Your task to perform on an android device: turn off priority inbox in the gmail app Image 0: 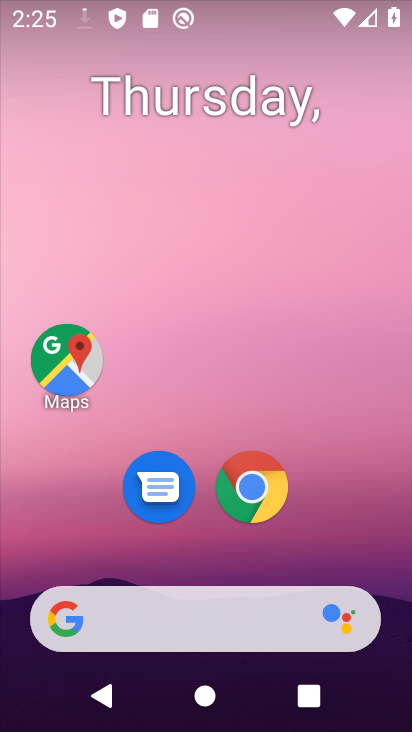
Step 0: drag from (340, 555) to (322, 147)
Your task to perform on an android device: turn off priority inbox in the gmail app Image 1: 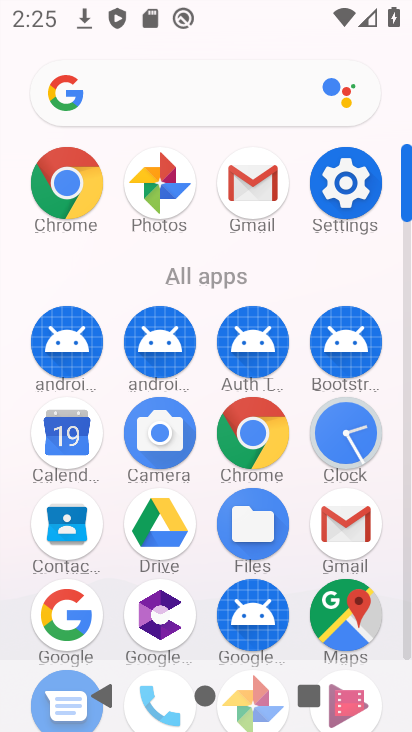
Step 1: click (354, 535)
Your task to perform on an android device: turn off priority inbox in the gmail app Image 2: 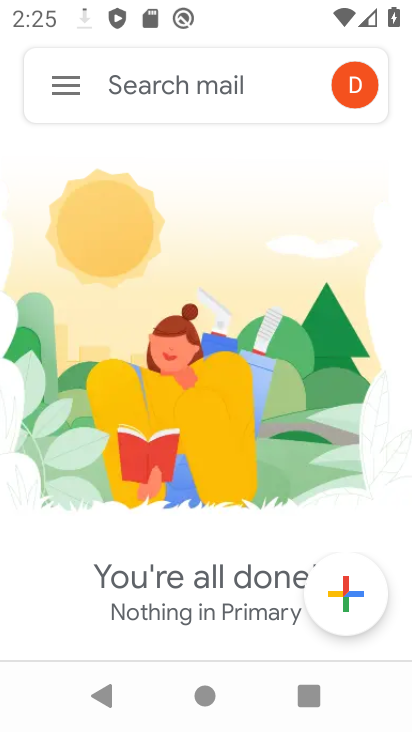
Step 2: click (52, 85)
Your task to perform on an android device: turn off priority inbox in the gmail app Image 3: 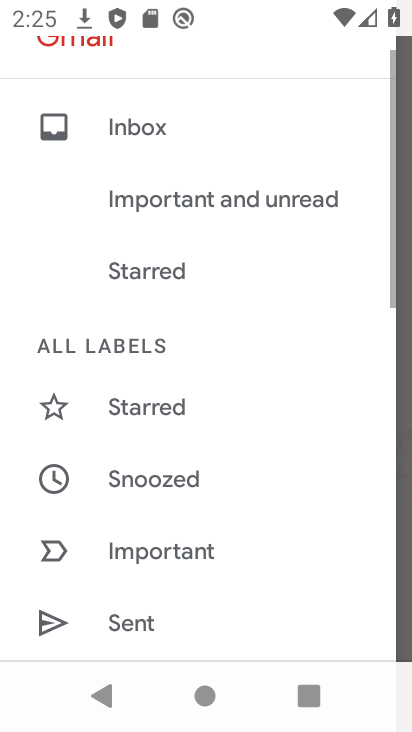
Step 3: drag from (182, 426) to (192, 182)
Your task to perform on an android device: turn off priority inbox in the gmail app Image 4: 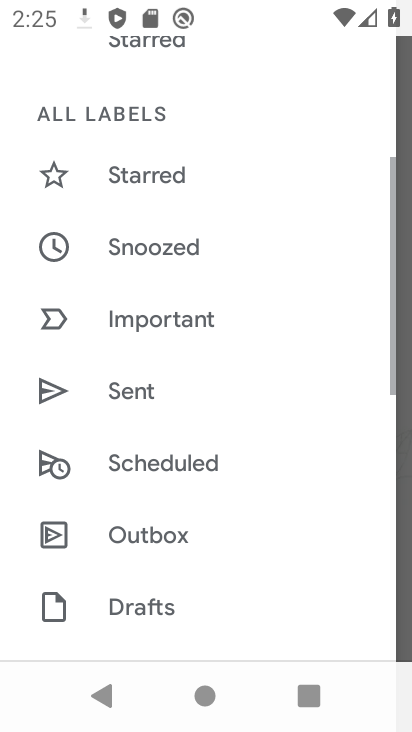
Step 4: drag from (193, 513) to (193, 164)
Your task to perform on an android device: turn off priority inbox in the gmail app Image 5: 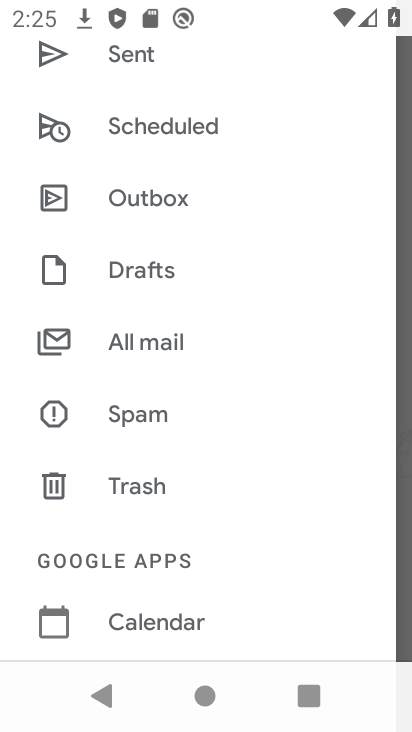
Step 5: drag from (194, 552) to (176, 205)
Your task to perform on an android device: turn off priority inbox in the gmail app Image 6: 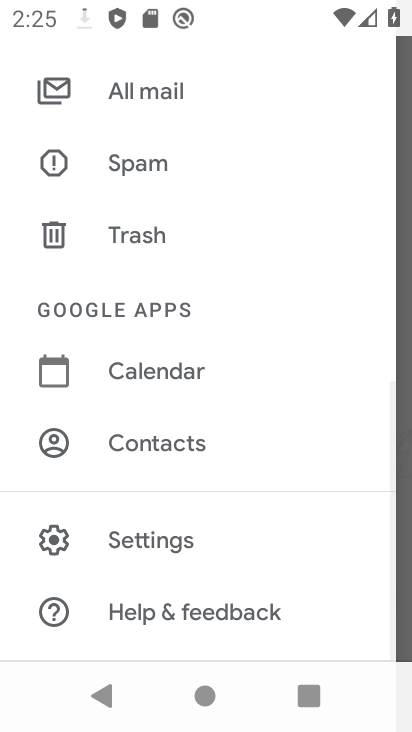
Step 6: click (157, 537)
Your task to perform on an android device: turn off priority inbox in the gmail app Image 7: 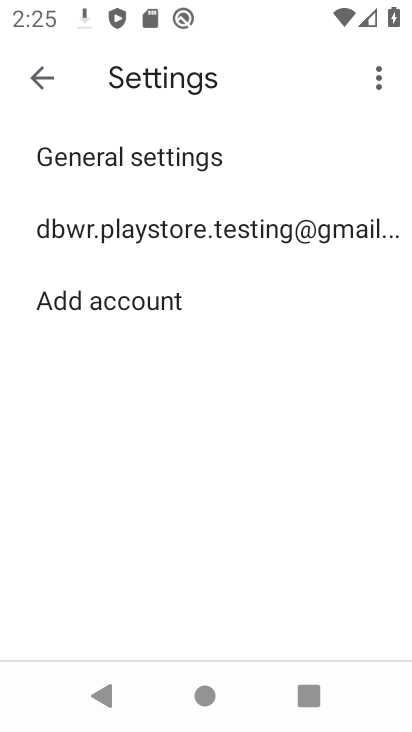
Step 7: click (381, 91)
Your task to perform on an android device: turn off priority inbox in the gmail app Image 8: 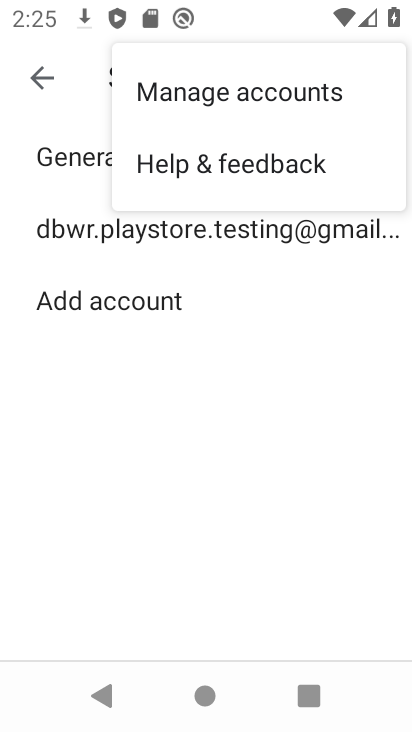
Step 8: task complete